Your task to perform on an android device: Open Android settings Image 0: 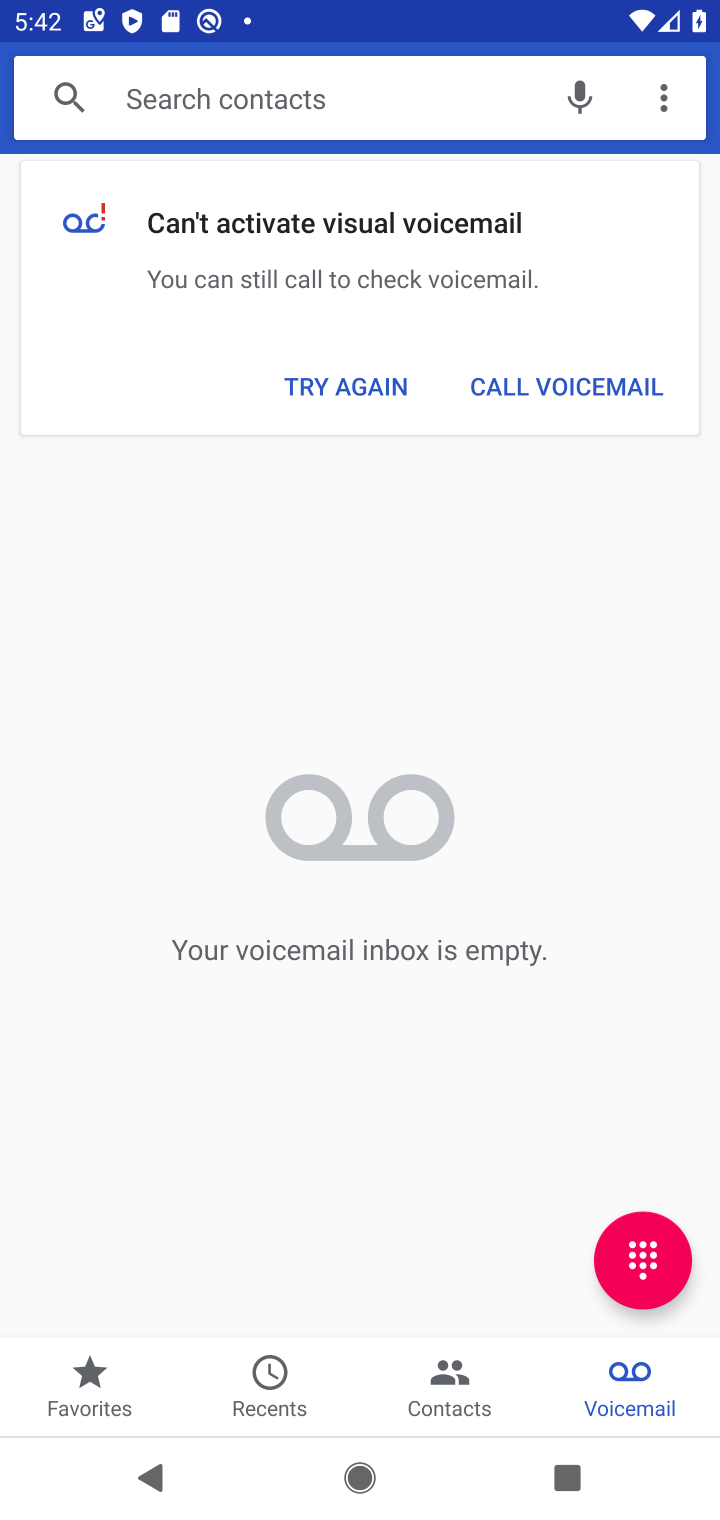
Step 0: press home button
Your task to perform on an android device: Open Android settings Image 1: 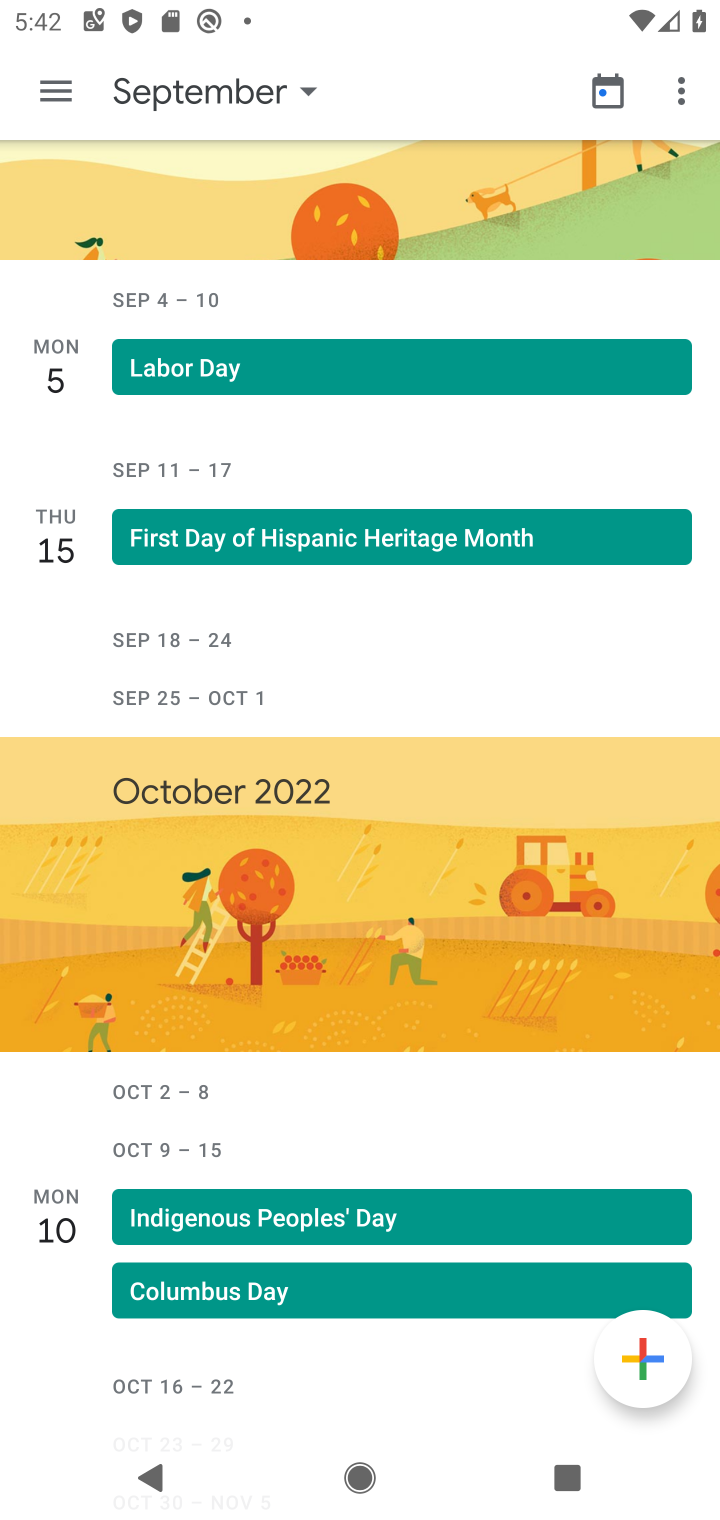
Step 1: press home button
Your task to perform on an android device: Open Android settings Image 2: 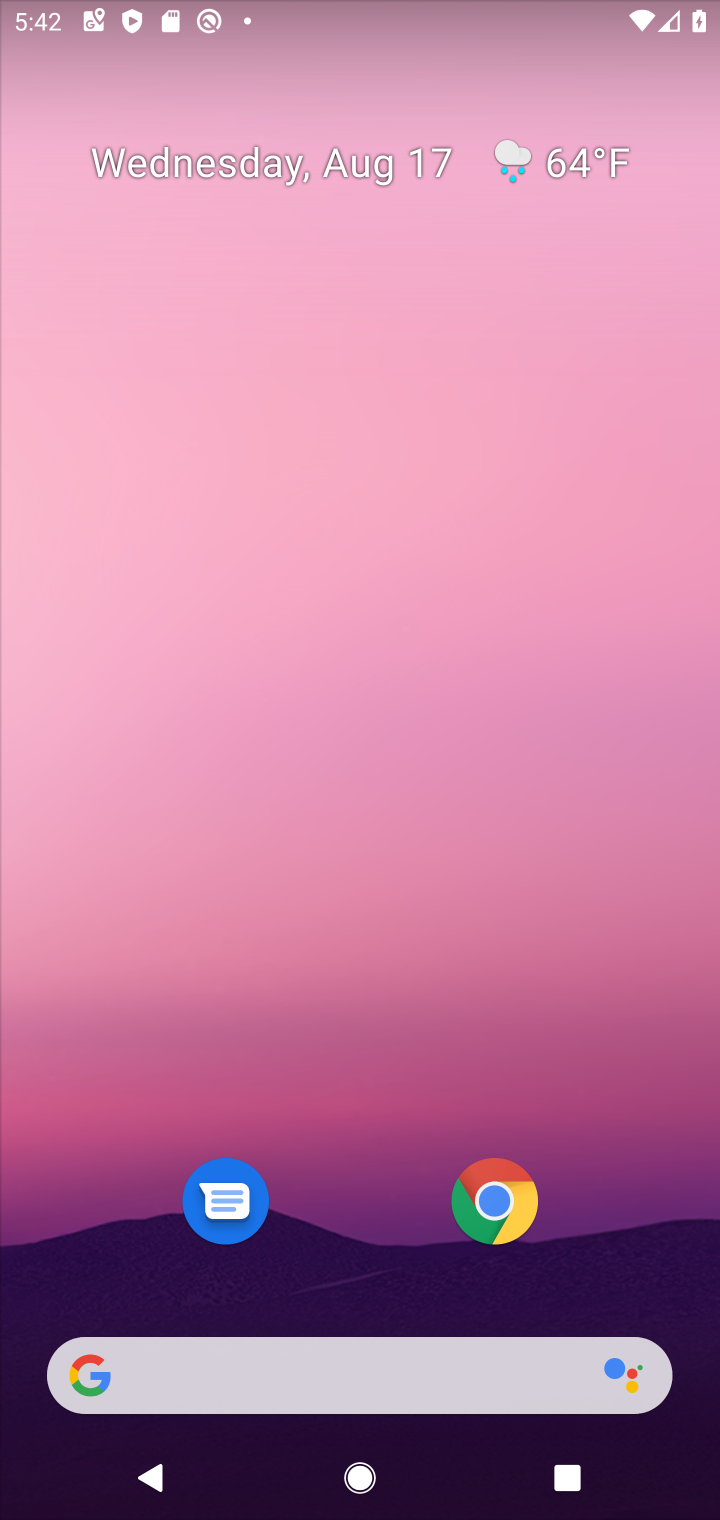
Step 2: press home button
Your task to perform on an android device: Open Android settings Image 3: 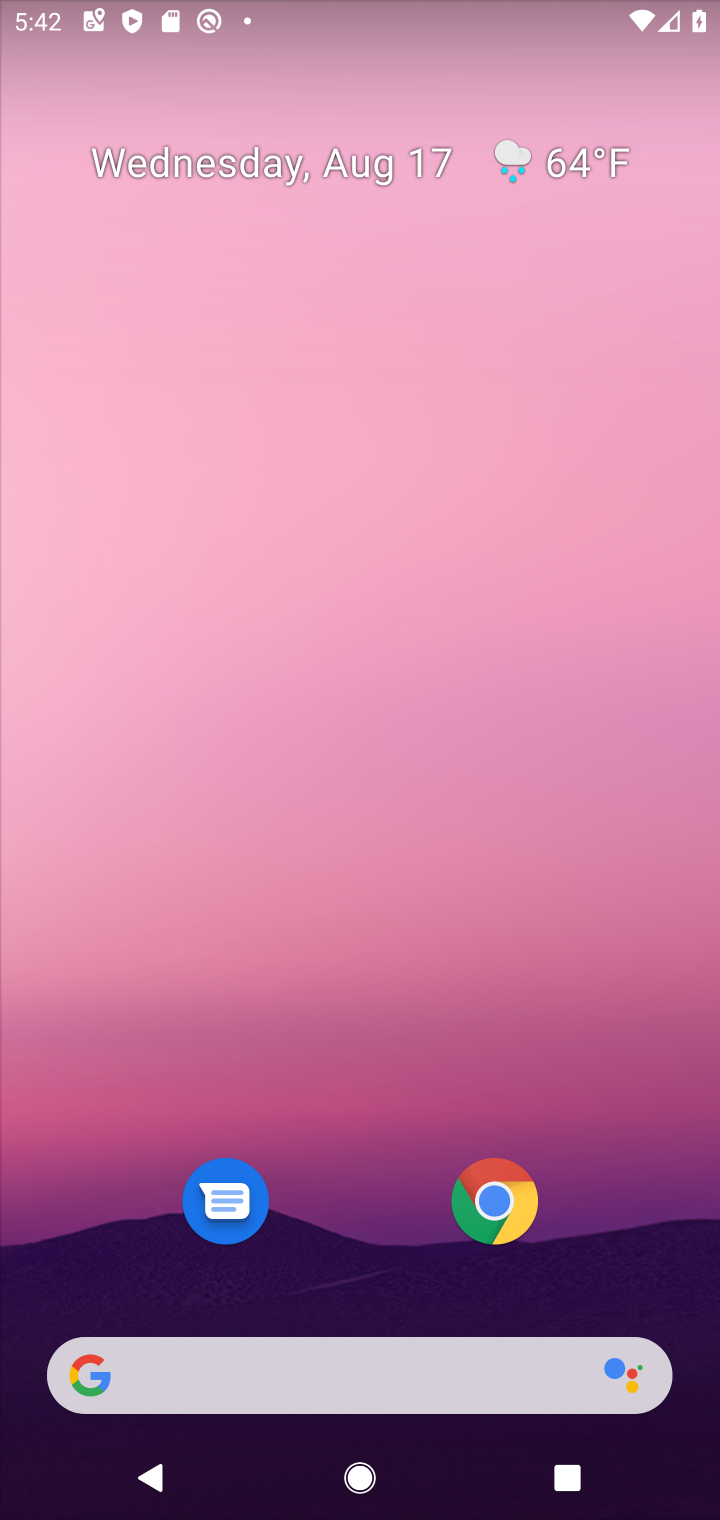
Step 3: drag from (374, 1248) to (227, 235)
Your task to perform on an android device: Open Android settings Image 4: 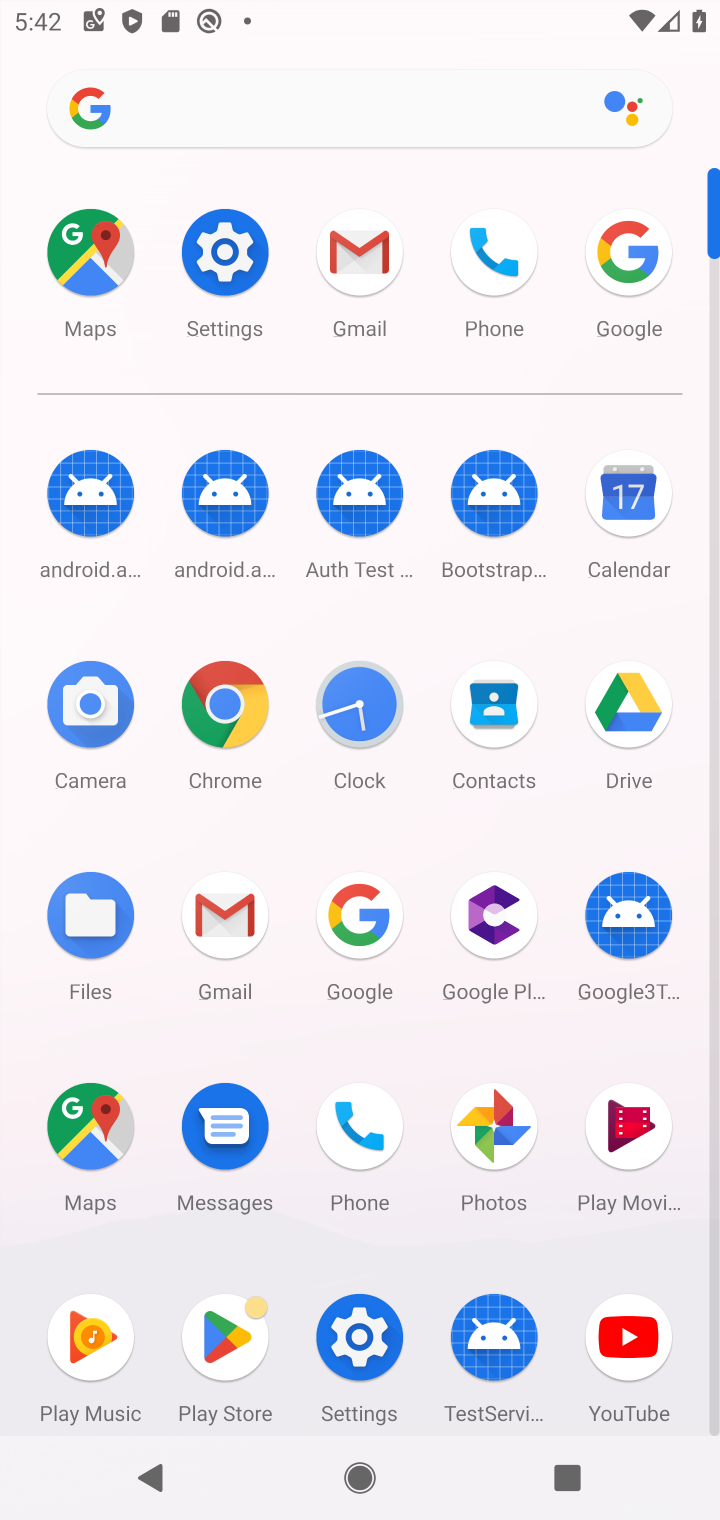
Step 4: click (207, 253)
Your task to perform on an android device: Open Android settings Image 5: 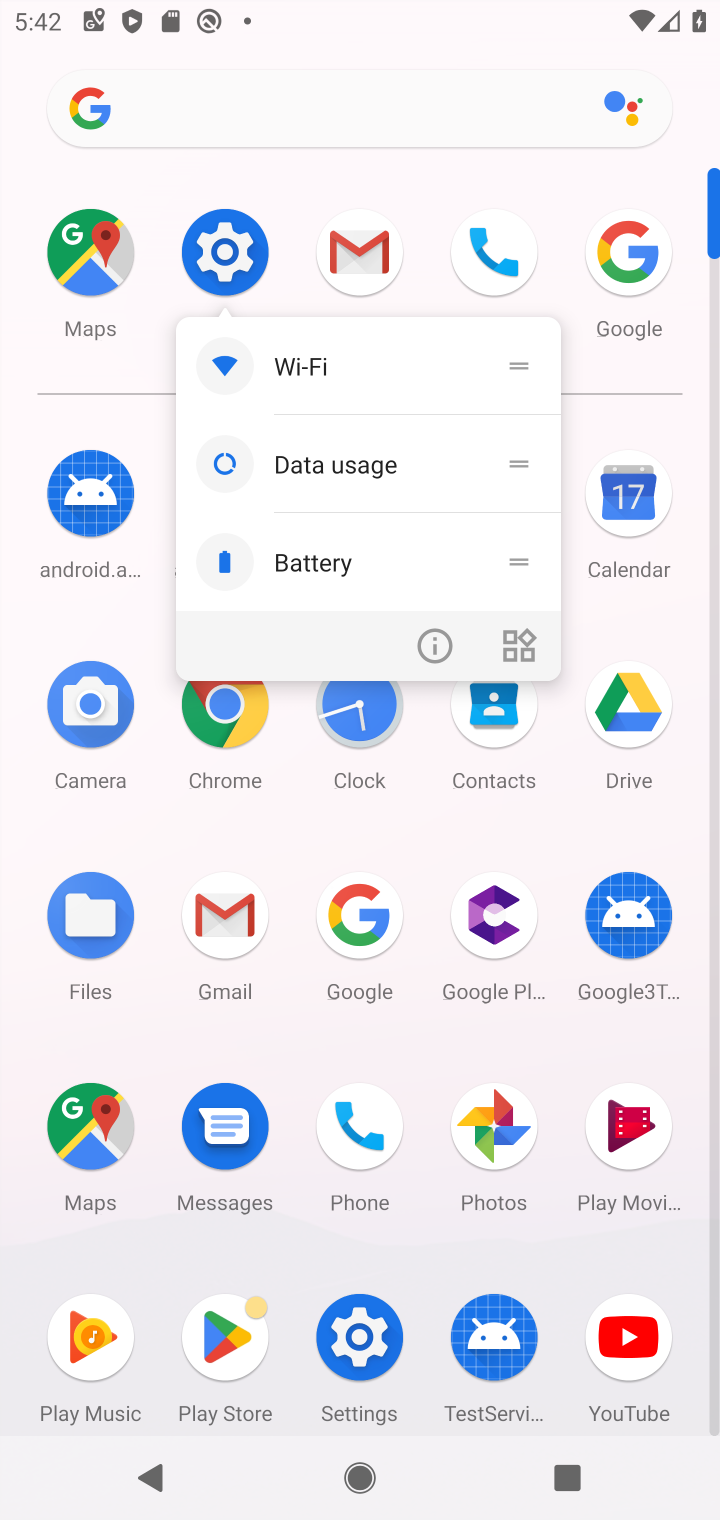
Step 5: click (195, 238)
Your task to perform on an android device: Open Android settings Image 6: 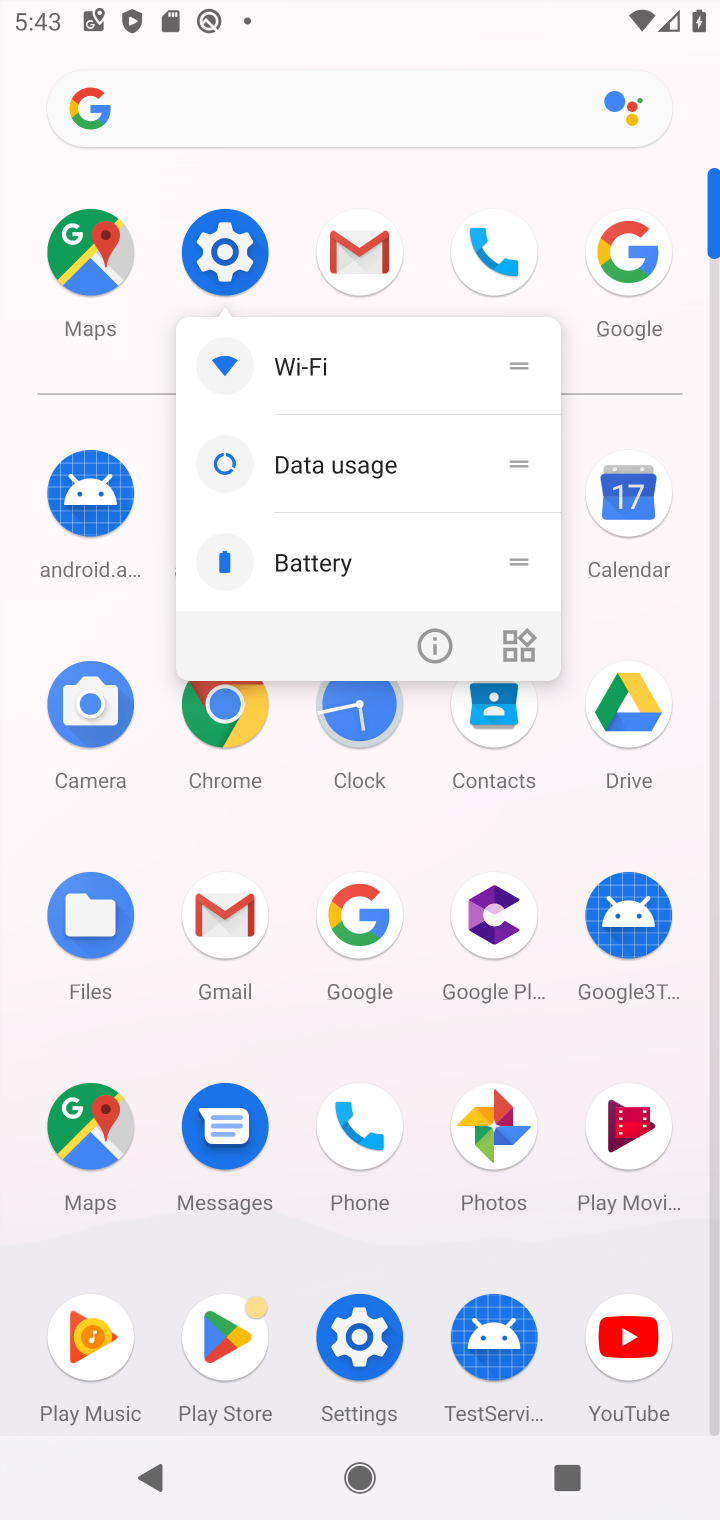
Step 6: click (197, 238)
Your task to perform on an android device: Open Android settings Image 7: 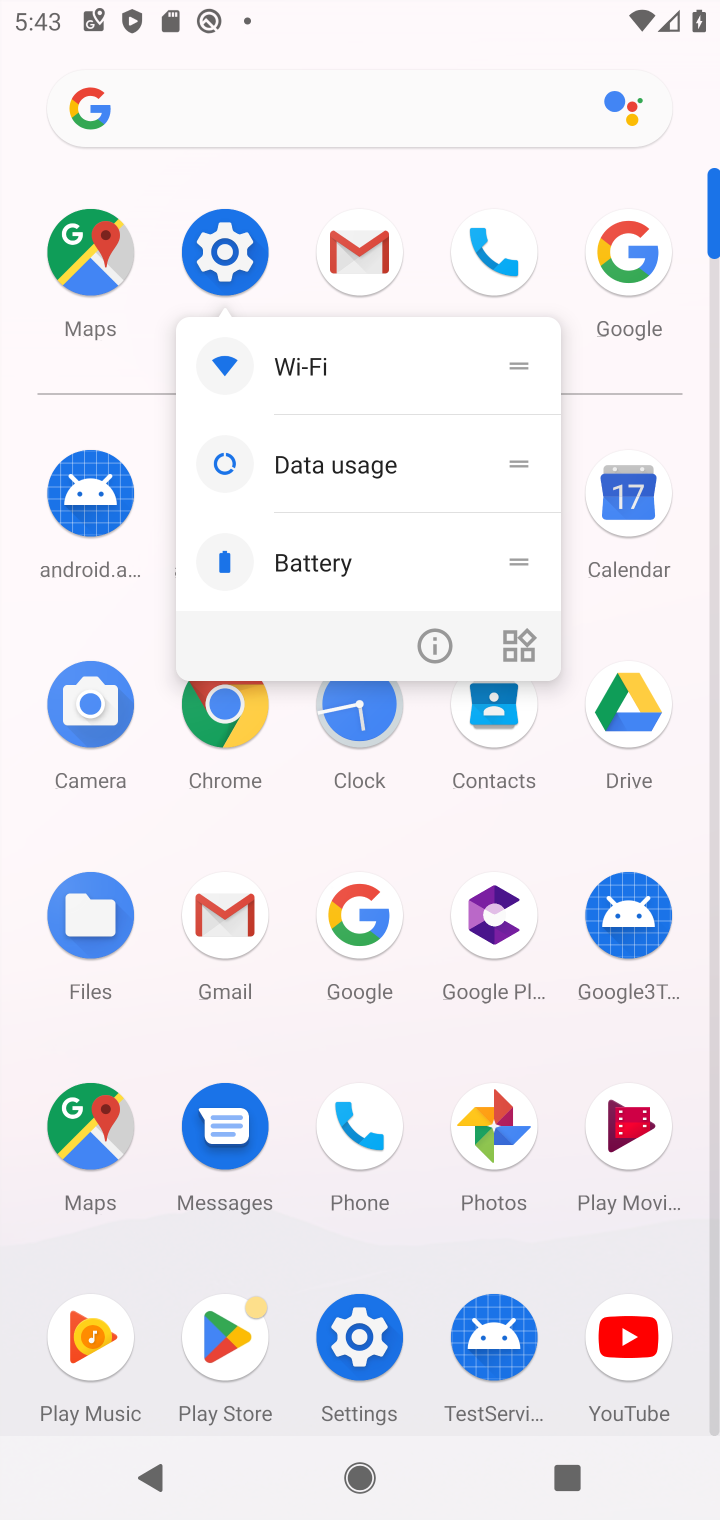
Step 7: click (251, 263)
Your task to perform on an android device: Open Android settings Image 8: 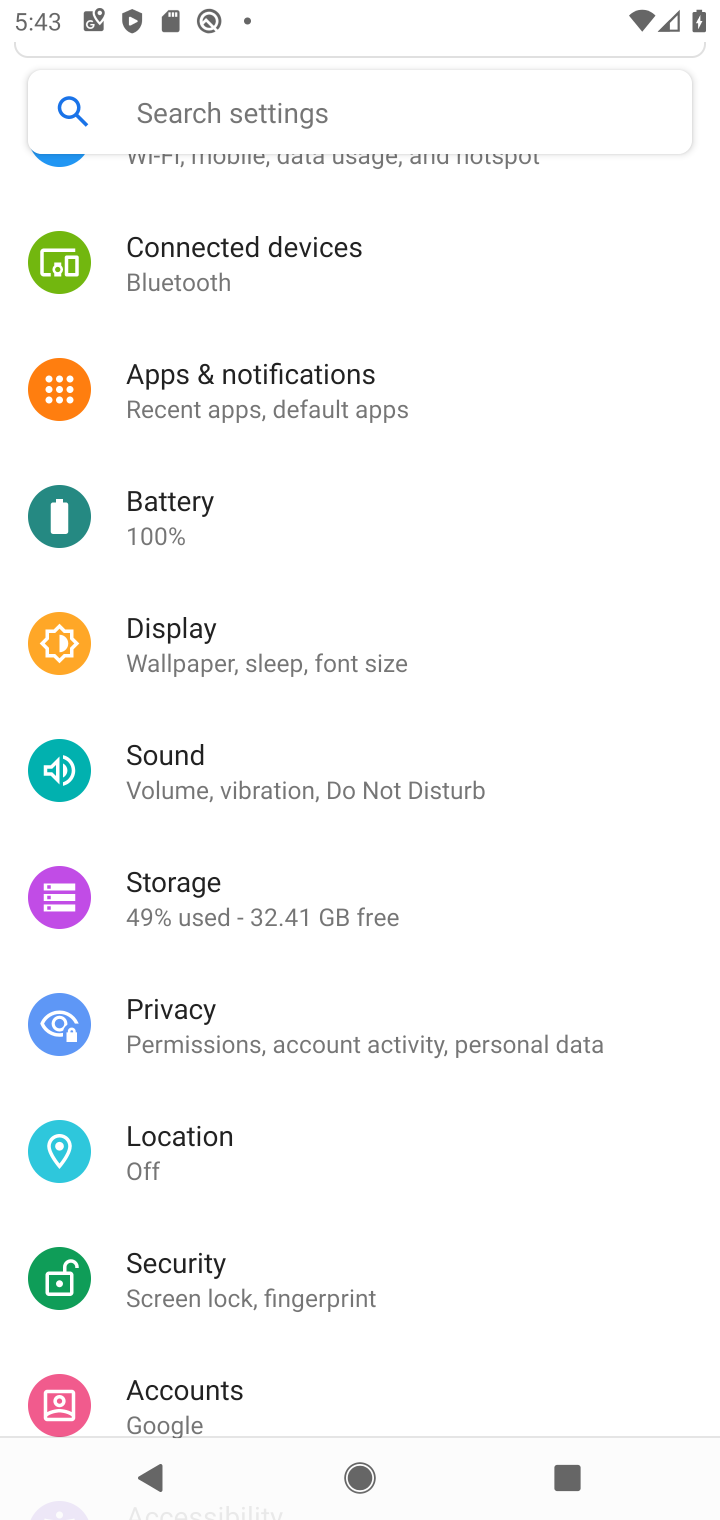
Step 8: task complete